Your task to perform on an android device: create a new album in the google photos Image 0: 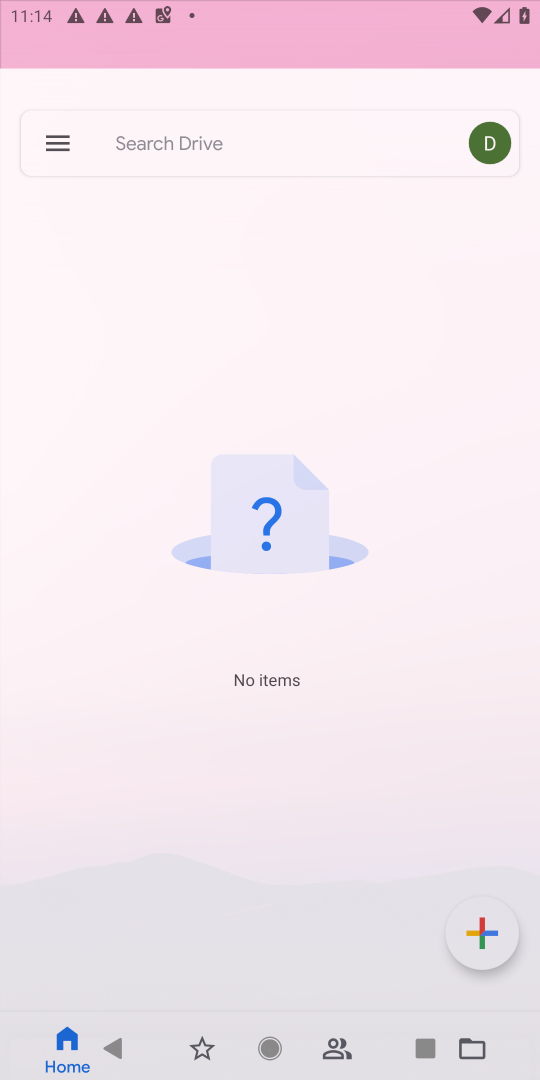
Step 0: press home button
Your task to perform on an android device: create a new album in the google photos Image 1: 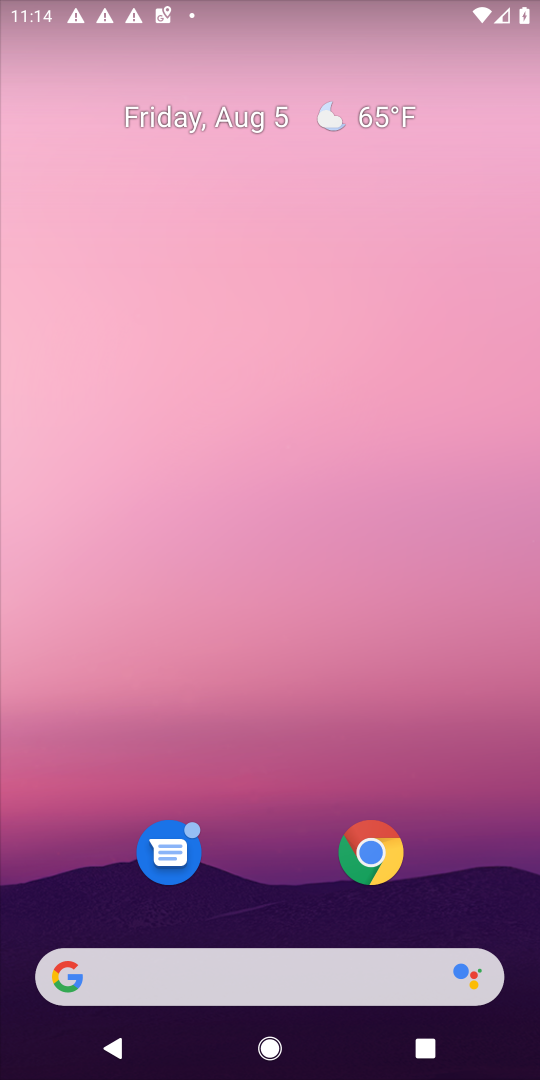
Step 1: drag from (296, 1013) to (320, 331)
Your task to perform on an android device: create a new album in the google photos Image 2: 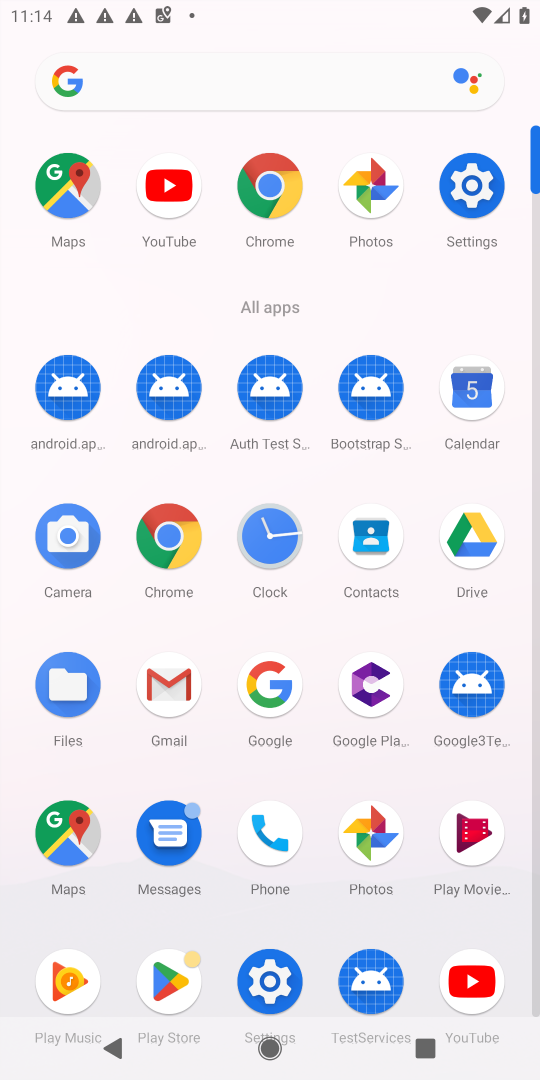
Step 2: click (472, 189)
Your task to perform on an android device: create a new album in the google photos Image 3: 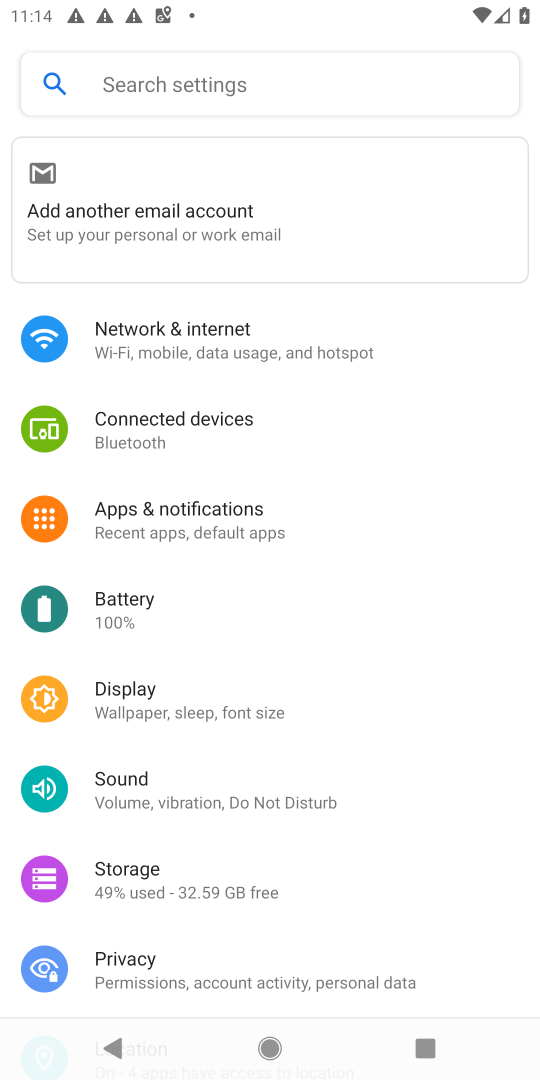
Step 3: press home button
Your task to perform on an android device: create a new album in the google photos Image 4: 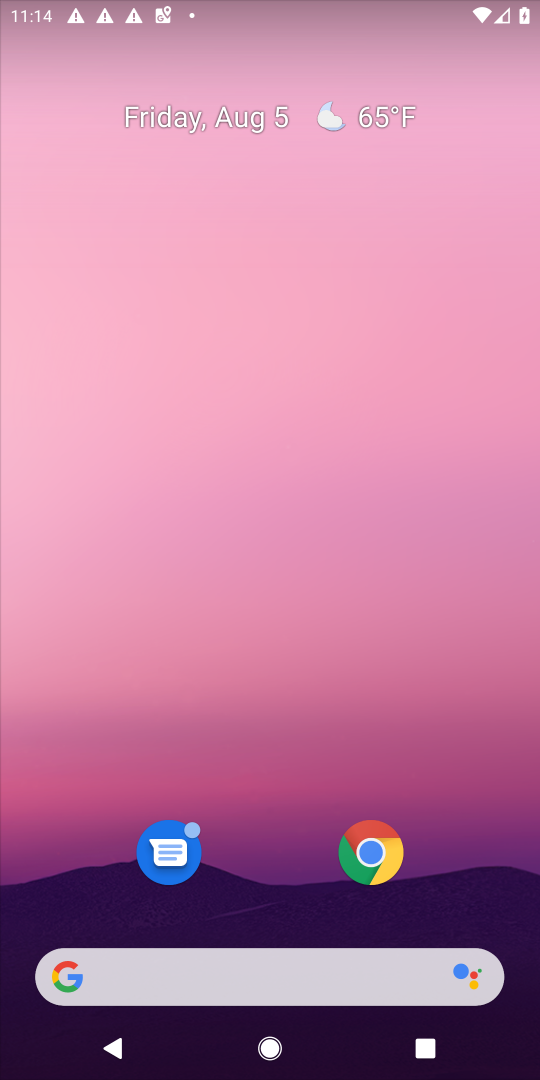
Step 4: drag from (428, 1001) to (354, 143)
Your task to perform on an android device: create a new album in the google photos Image 5: 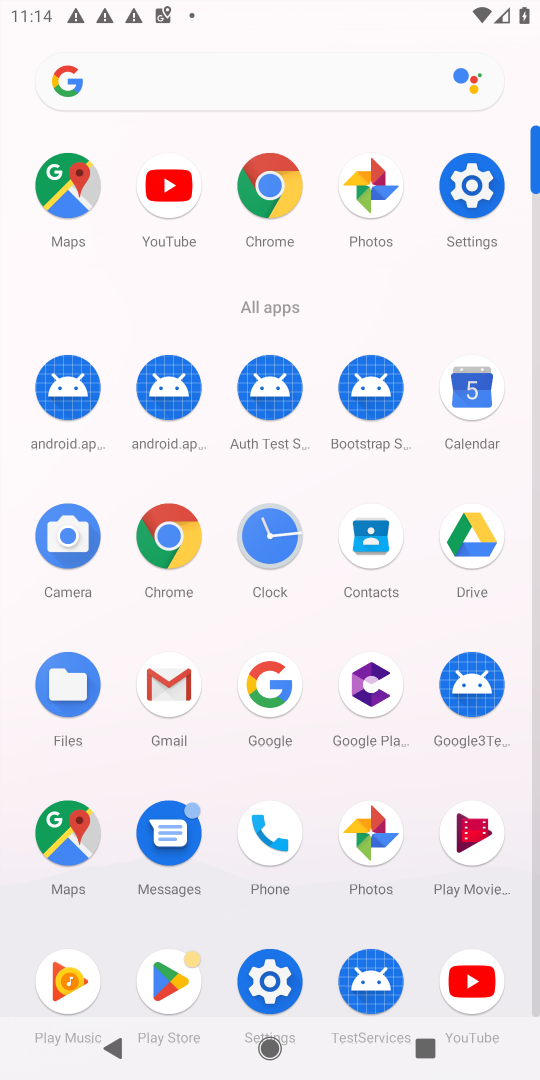
Step 5: click (341, 836)
Your task to perform on an android device: create a new album in the google photos Image 6: 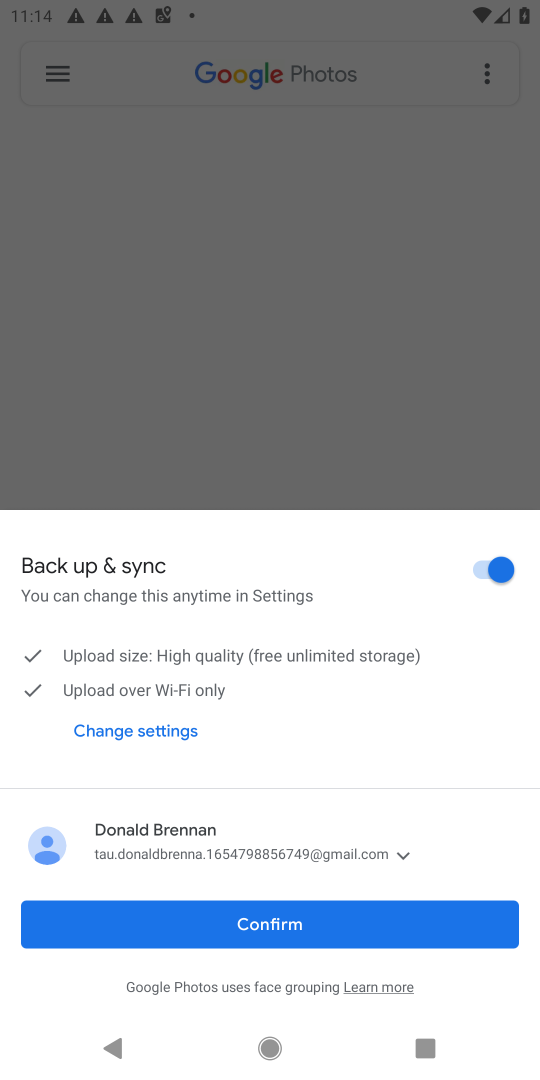
Step 6: click (219, 925)
Your task to perform on an android device: create a new album in the google photos Image 7: 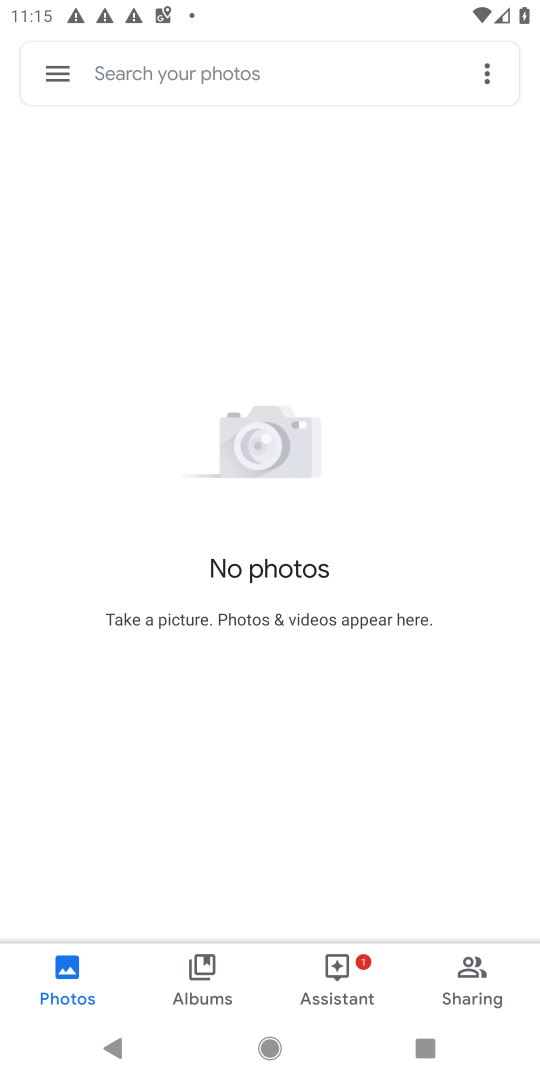
Step 7: task complete